Your task to perform on an android device: open app "Adobe Express: Graphic Design" Image 0: 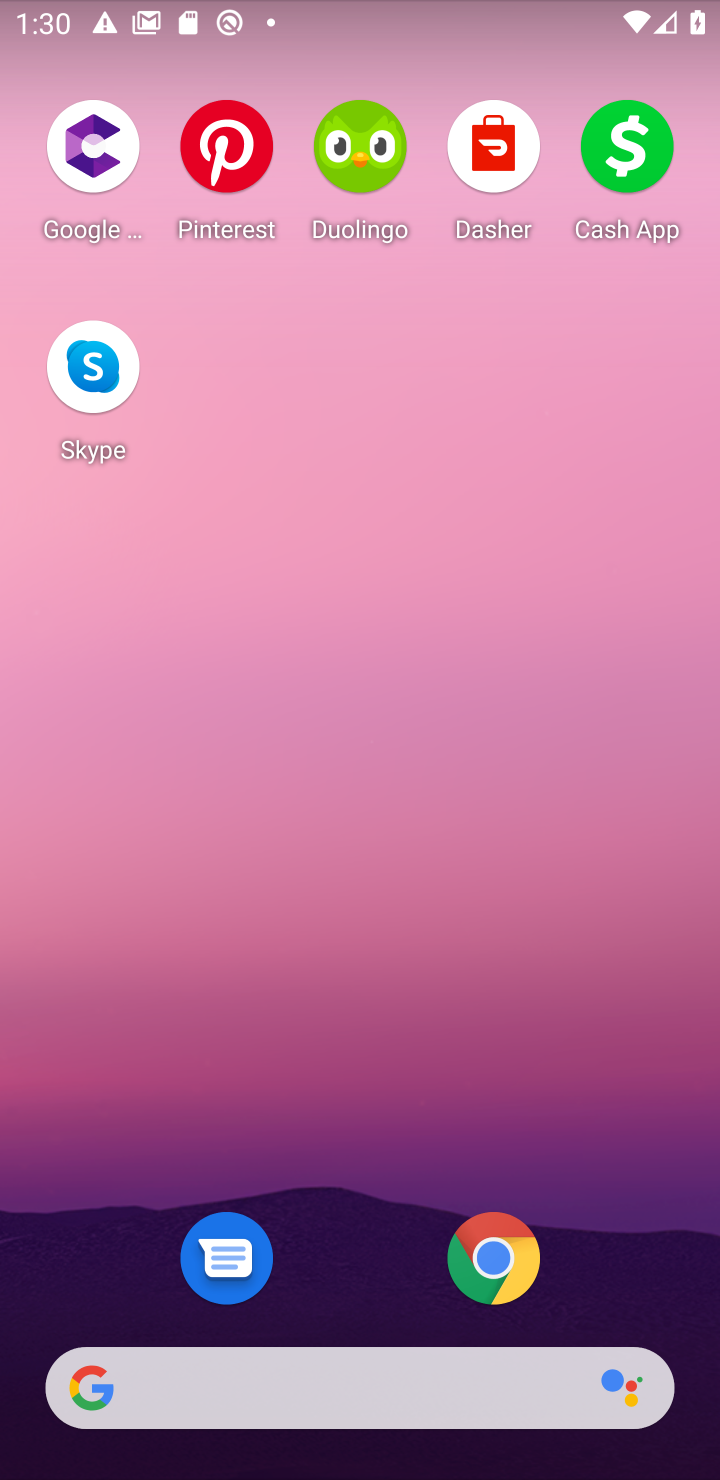
Step 0: drag from (139, 1264) to (419, 83)
Your task to perform on an android device: open app "Adobe Express: Graphic Design" Image 1: 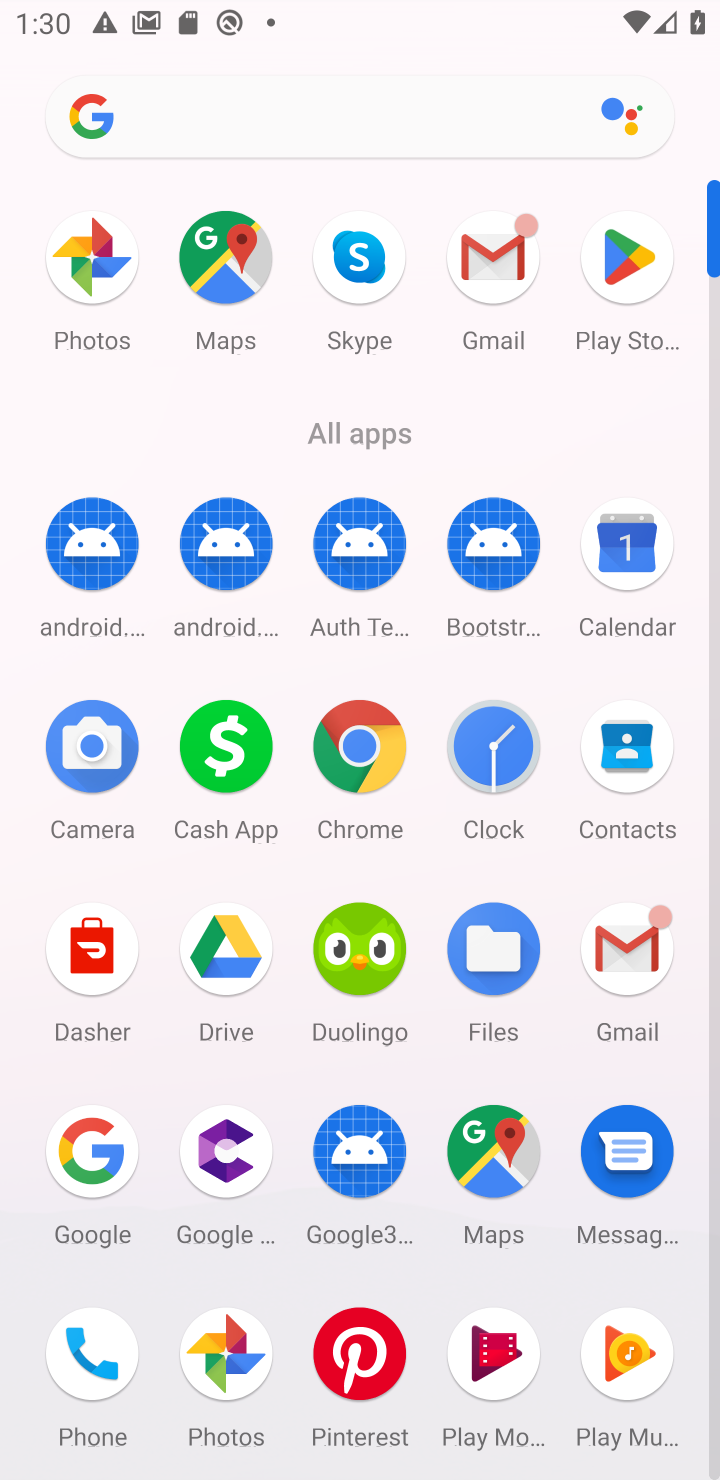
Step 1: click (633, 253)
Your task to perform on an android device: open app "Adobe Express: Graphic Design" Image 2: 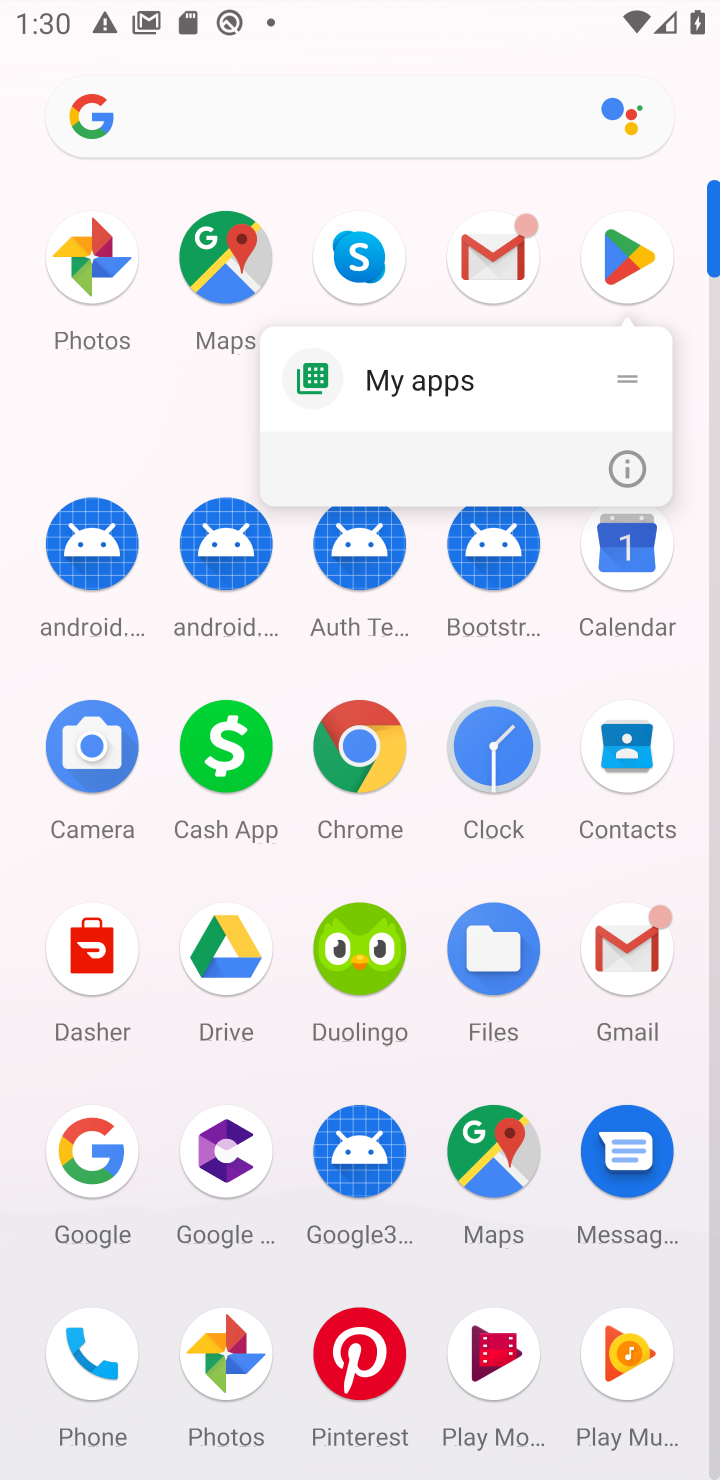
Step 2: click (608, 251)
Your task to perform on an android device: open app "Adobe Express: Graphic Design" Image 3: 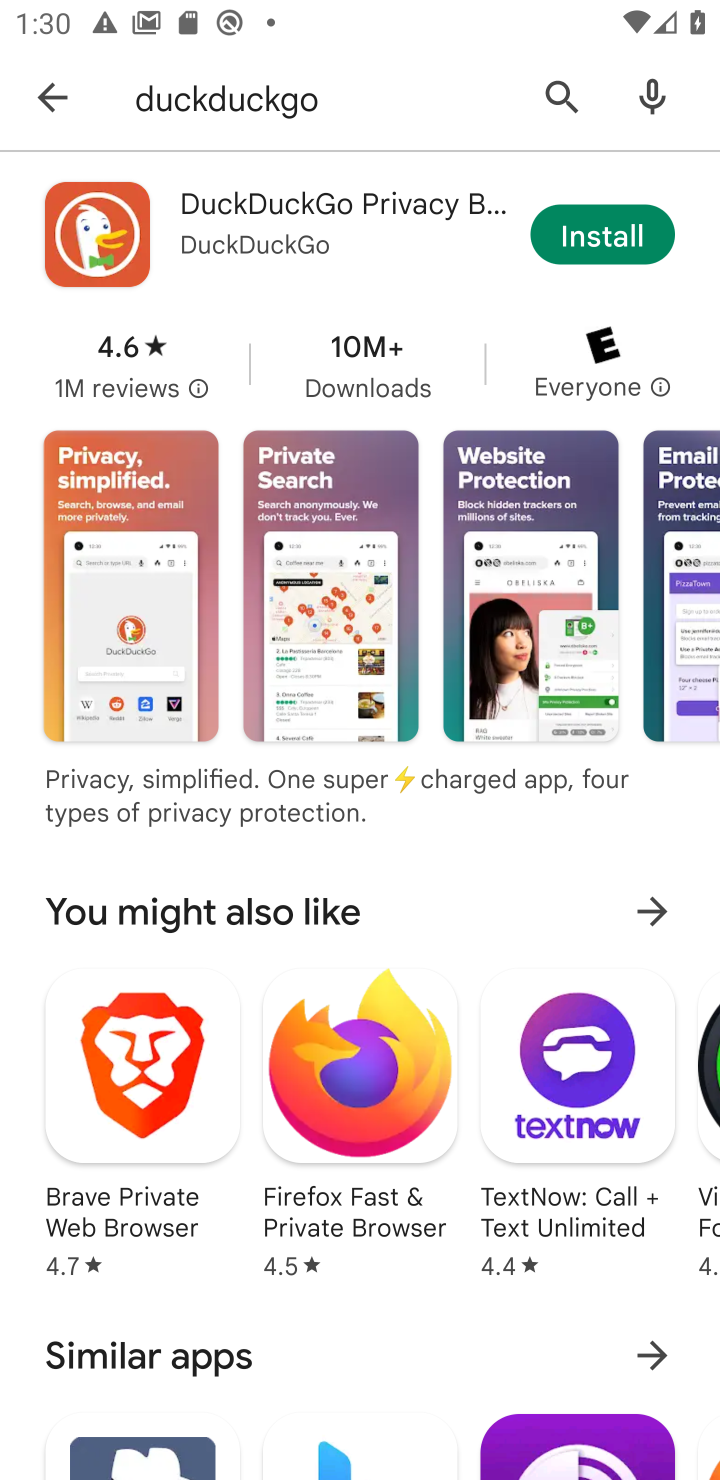
Step 3: click (557, 80)
Your task to perform on an android device: open app "Adobe Express: Graphic Design" Image 4: 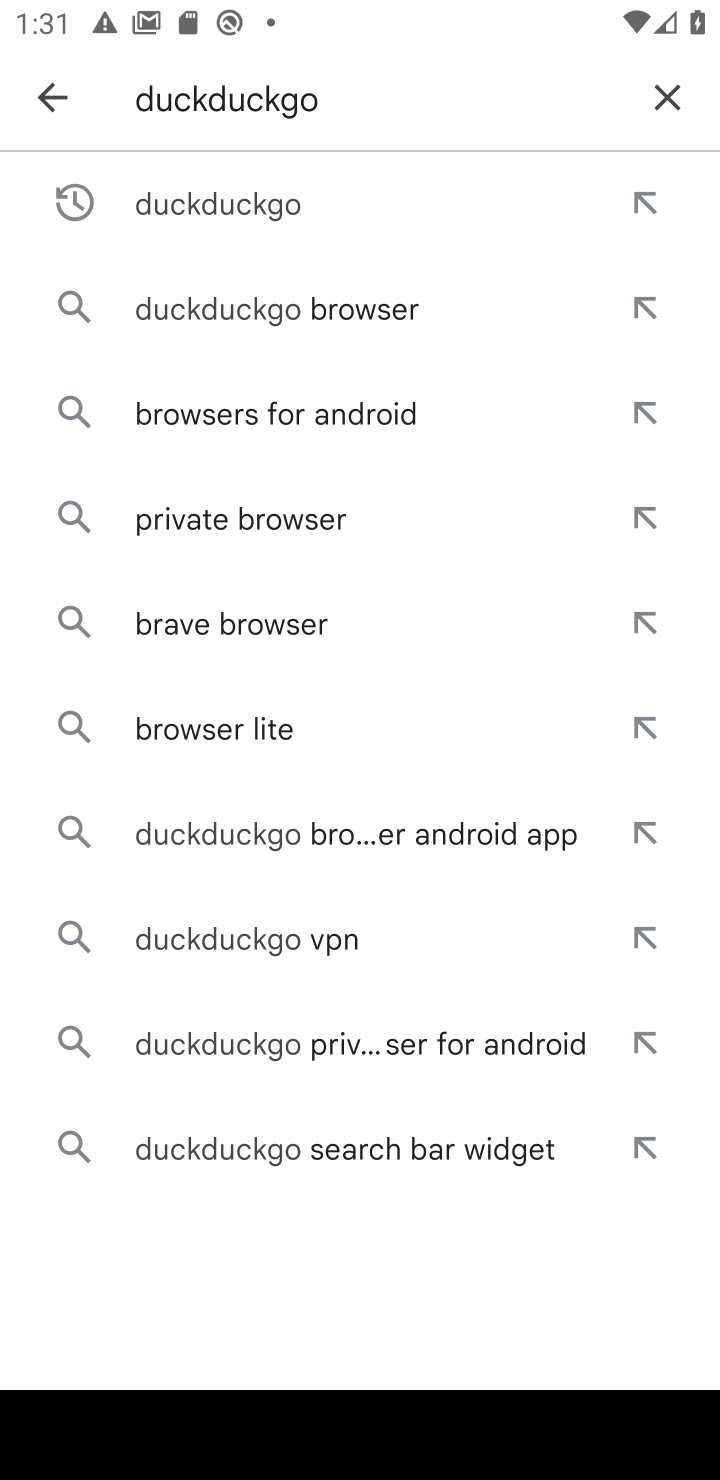
Step 4: click (682, 96)
Your task to perform on an android device: open app "Adobe Express: Graphic Design" Image 5: 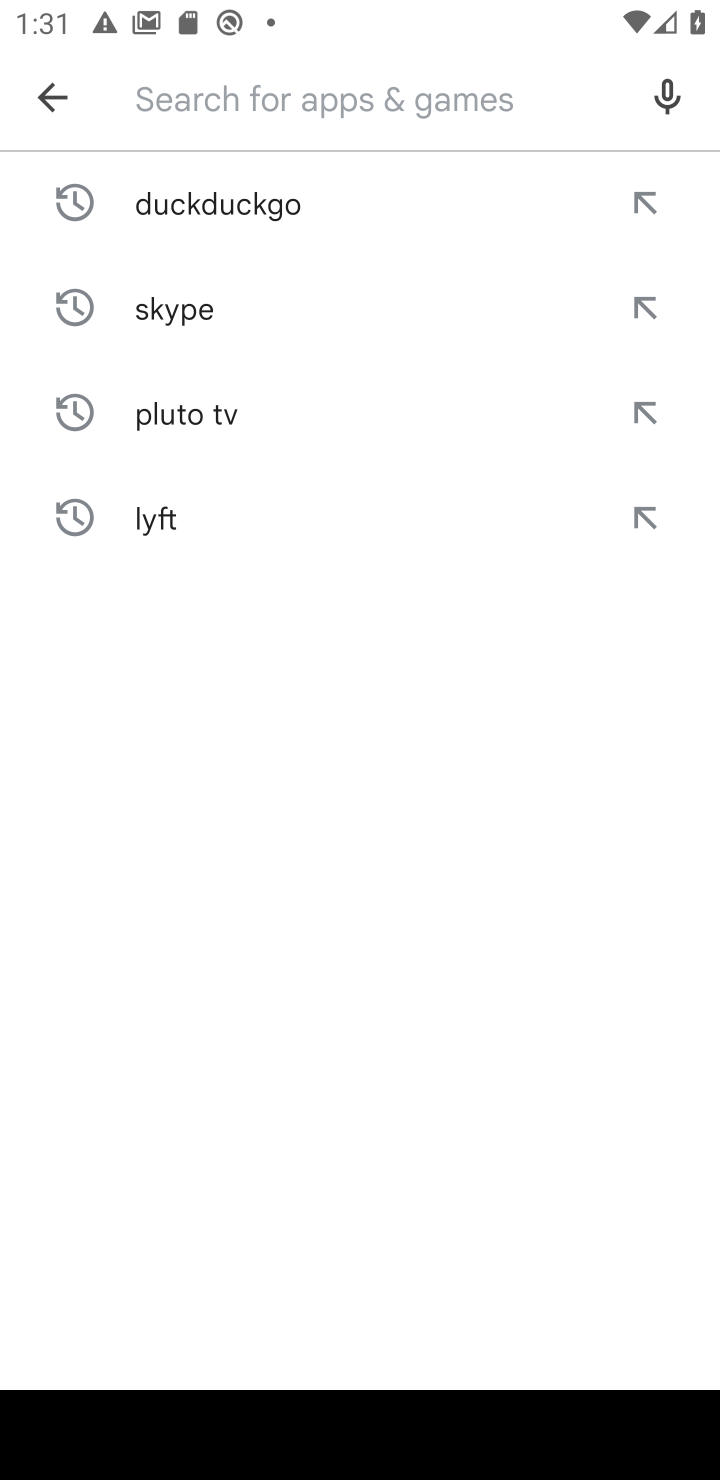
Step 5: click (269, 91)
Your task to perform on an android device: open app "Adobe Express: Graphic Design" Image 6: 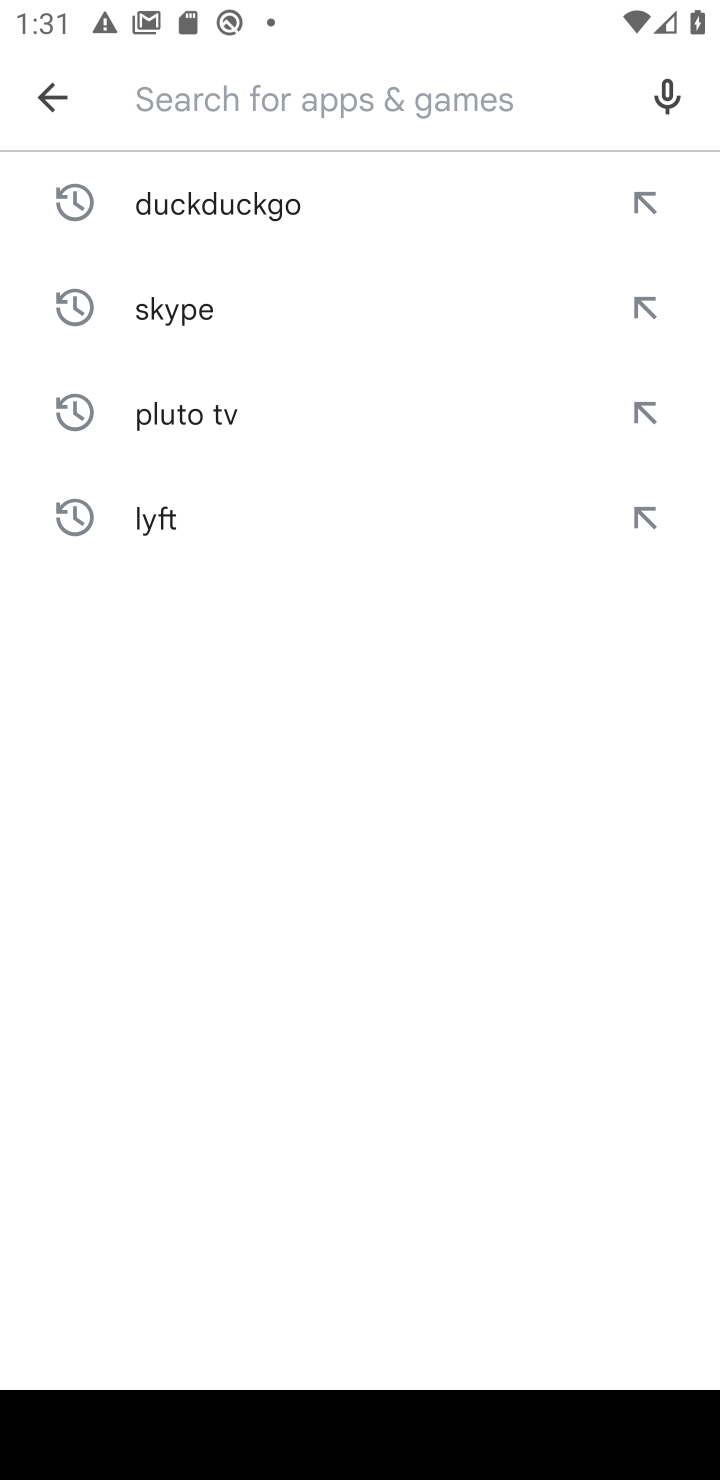
Step 6: type "adobe express"
Your task to perform on an android device: open app "Adobe Express: Graphic Design" Image 7: 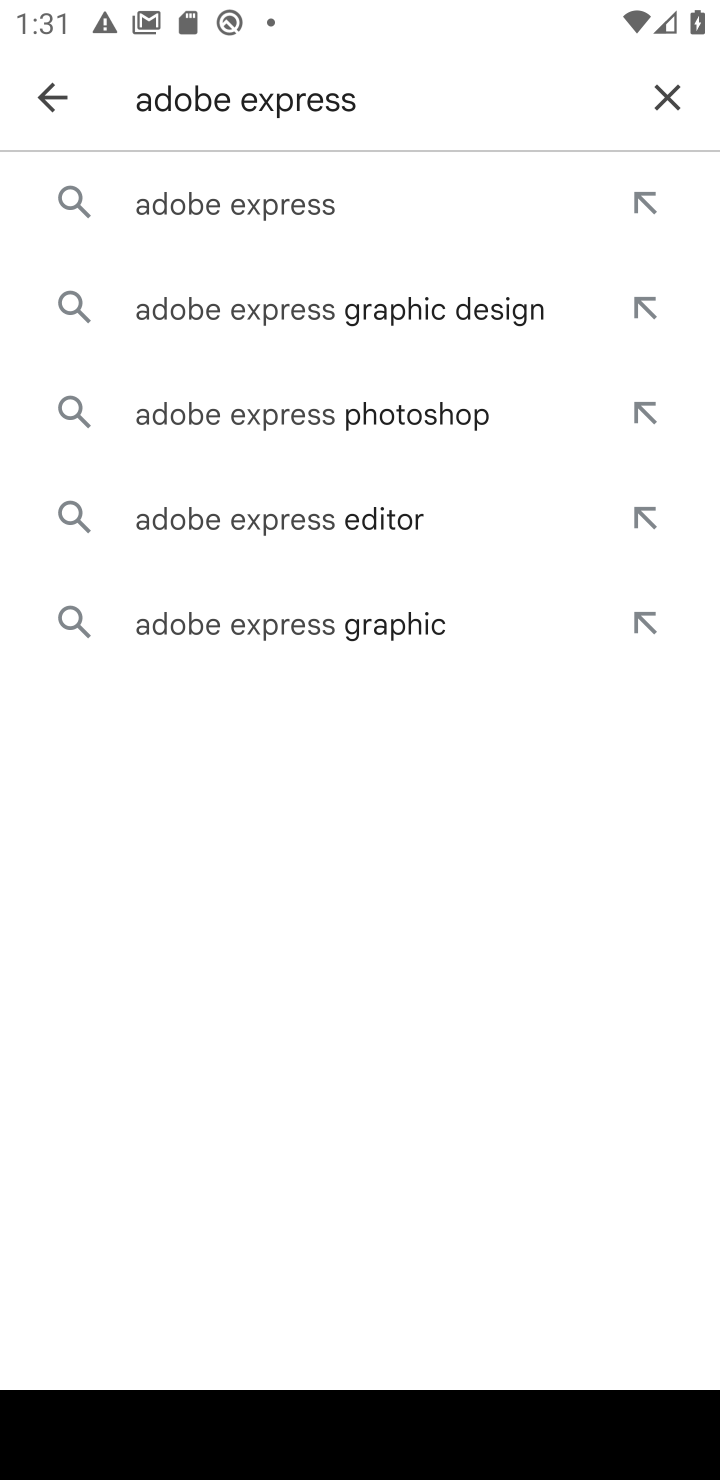
Step 7: click (233, 203)
Your task to perform on an android device: open app "Adobe Express: Graphic Design" Image 8: 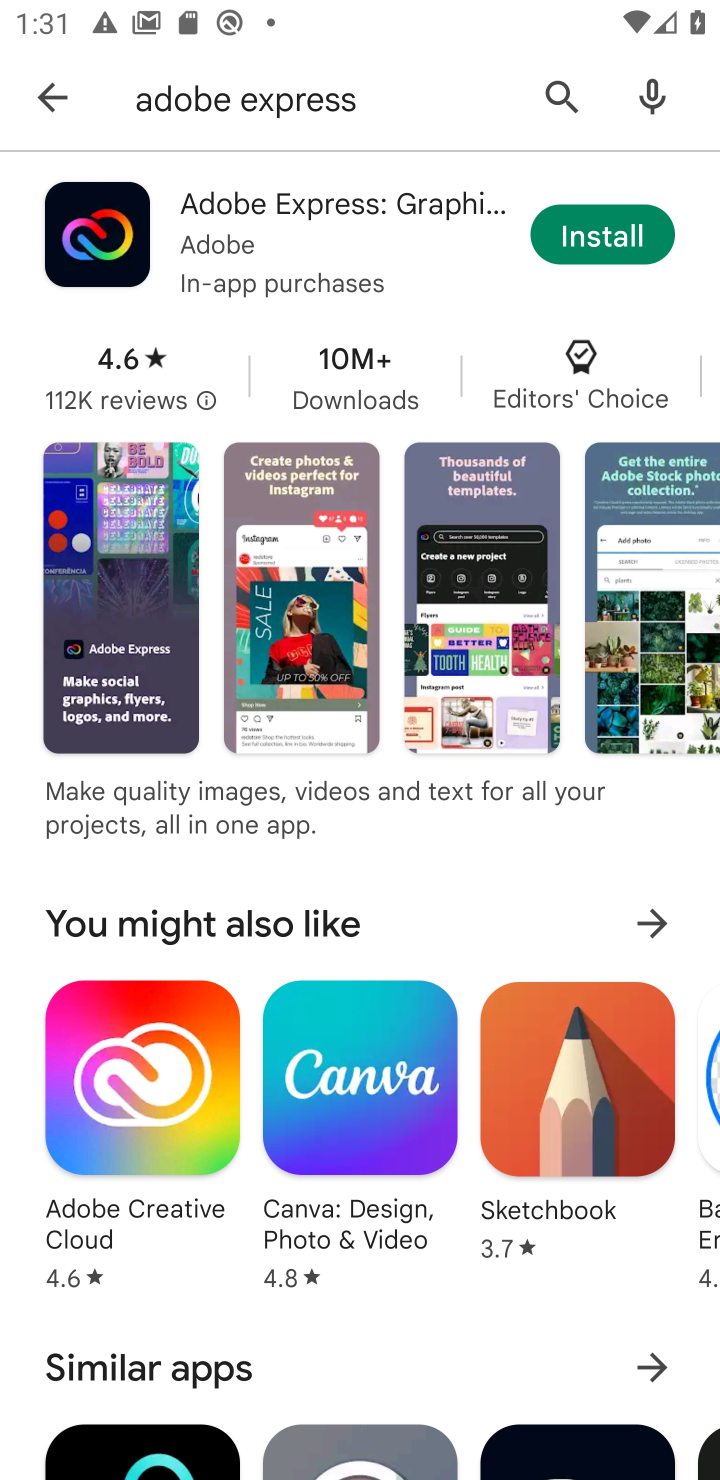
Step 8: task complete